Your task to perform on an android device: Go to Wikipedia Image 0: 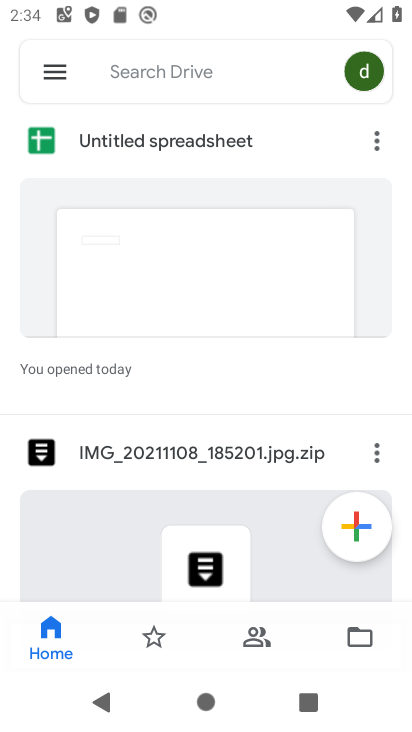
Step 0: press home button
Your task to perform on an android device: Go to Wikipedia Image 1: 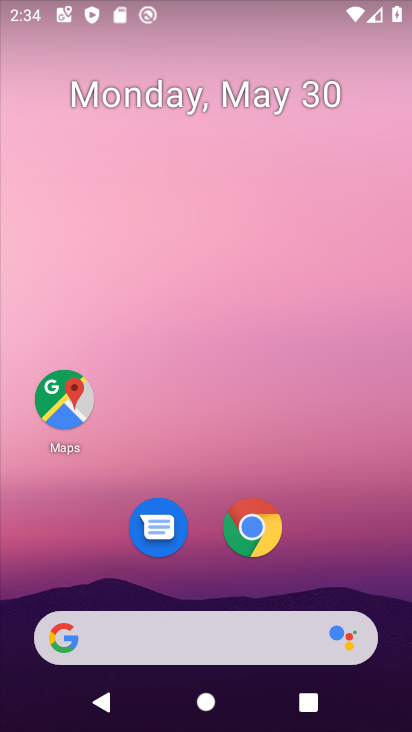
Step 1: drag from (212, 513) to (234, 81)
Your task to perform on an android device: Go to Wikipedia Image 2: 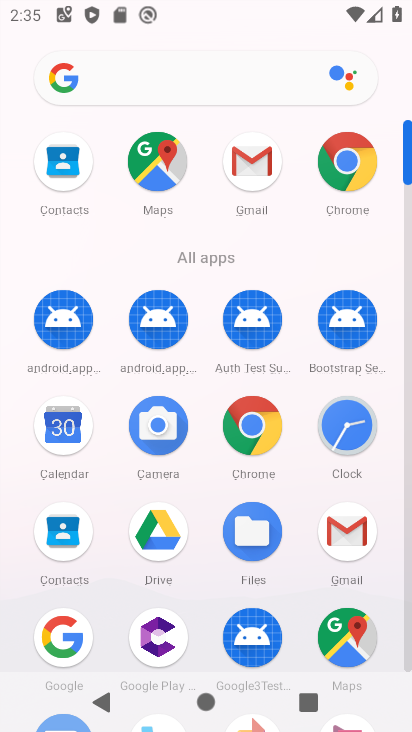
Step 2: drag from (205, 205) to (310, 14)
Your task to perform on an android device: Go to Wikipedia Image 3: 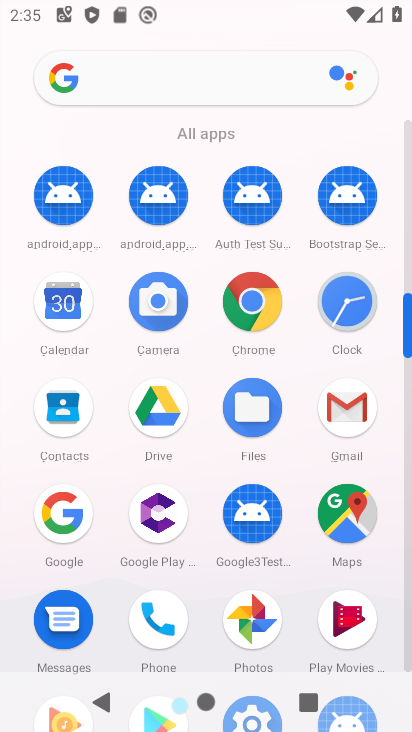
Step 3: drag from (194, 388) to (205, 91)
Your task to perform on an android device: Go to Wikipedia Image 4: 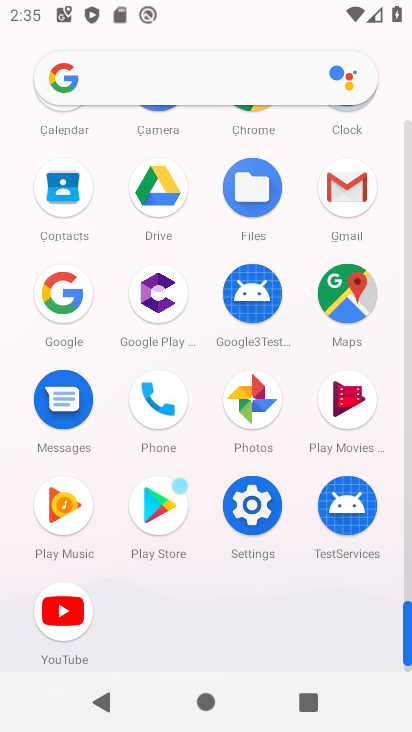
Step 4: drag from (172, 157) to (197, 531)
Your task to perform on an android device: Go to Wikipedia Image 5: 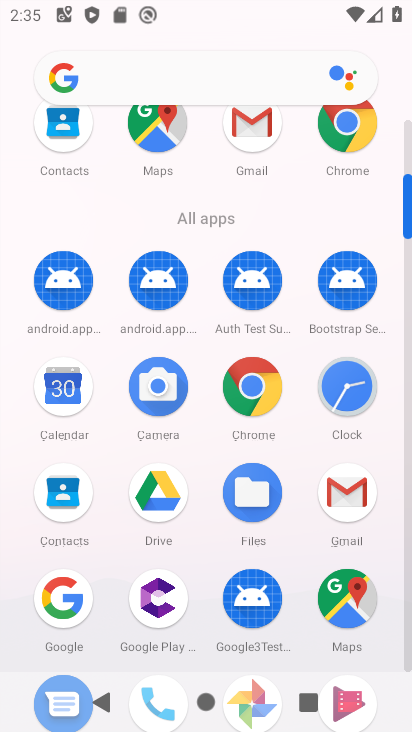
Step 5: click (252, 383)
Your task to perform on an android device: Go to Wikipedia Image 6: 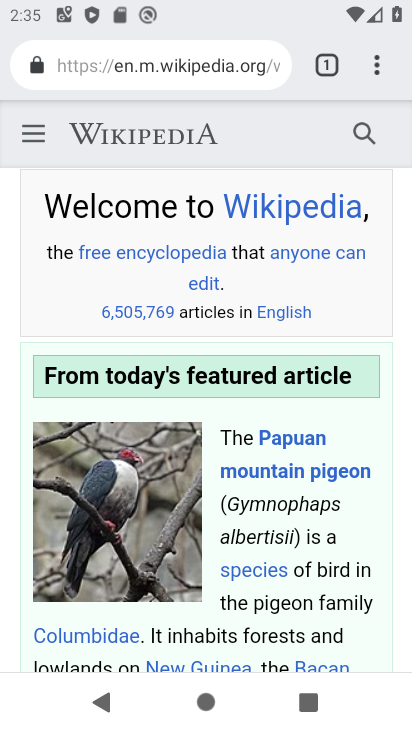
Step 6: task complete